Your task to perform on an android device: turn pop-ups off in chrome Image 0: 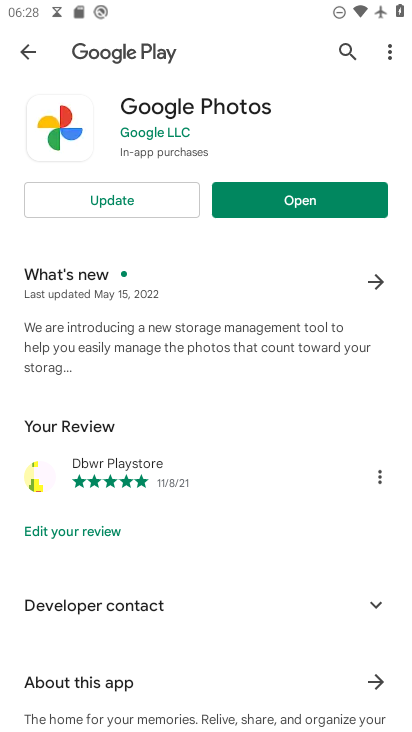
Step 0: press home button
Your task to perform on an android device: turn pop-ups off in chrome Image 1: 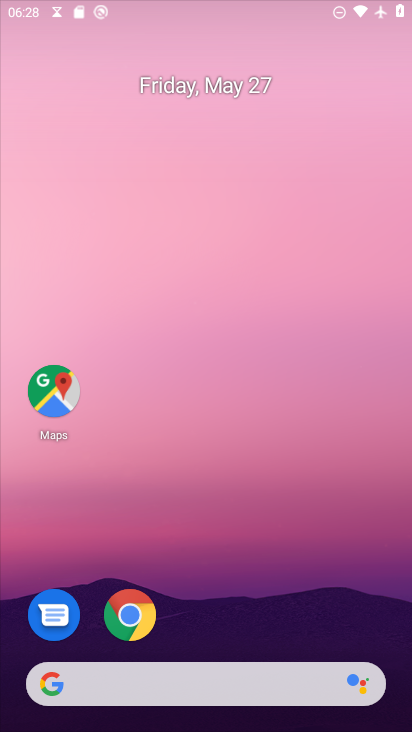
Step 1: drag from (280, 504) to (208, 71)
Your task to perform on an android device: turn pop-ups off in chrome Image 2: 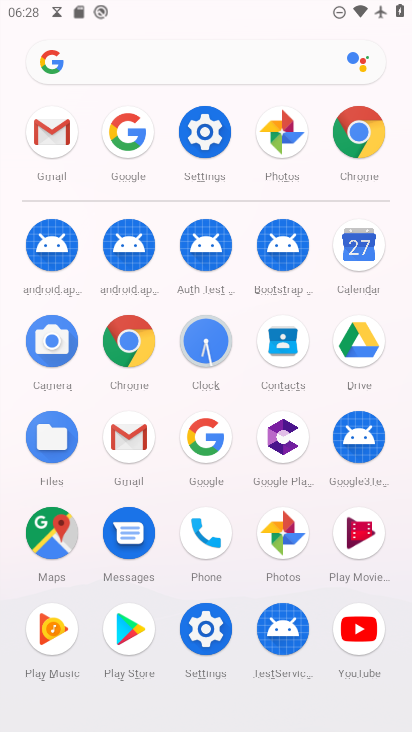
Step 2: click (361, 128)
Your task to perform on an android device: turn pop-ups off in chrome Image 3: 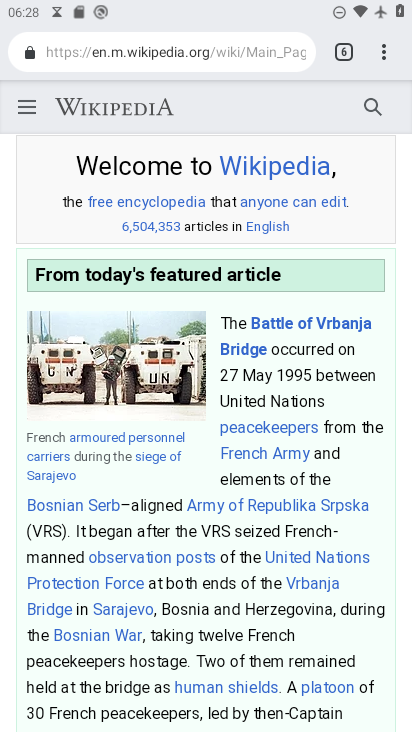
Step 3: click (385, 52)
Your task to perform on an android device: turn pop-ups off in chrome Image 4: 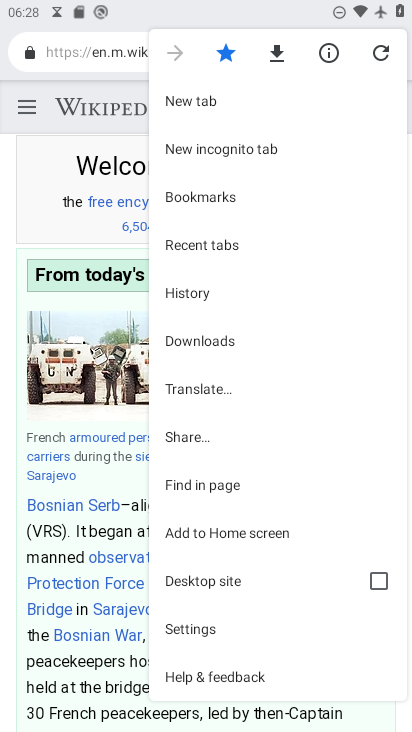
Step 4: click (237, 635)
Your task to perform on an android device: turn pop-ups off in chrome Image 5: 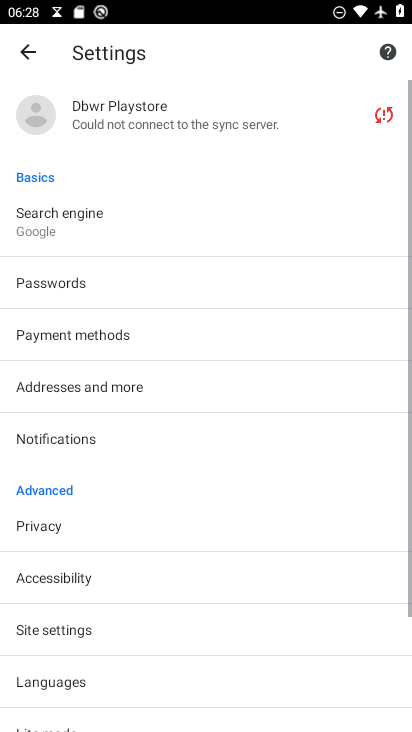
Step 5: drag from (208, 527) to (211, 103)
Your task to perform on an android device: turn pop-ups off in chrome Image 6: 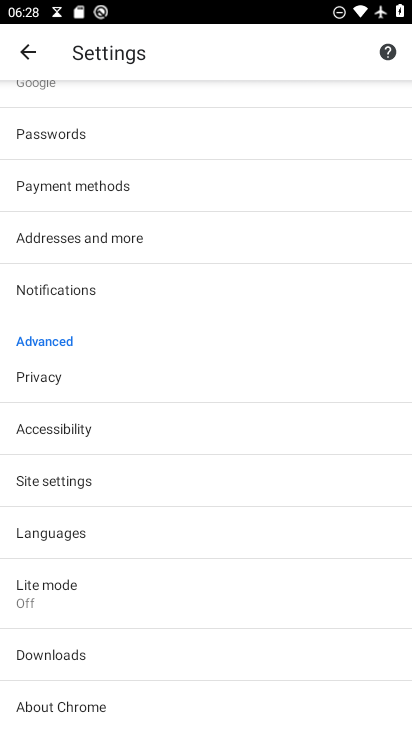
Step 6: click (121, 486)
Your task to perform on an android device: turn pop-ups off in chrome Image 7: 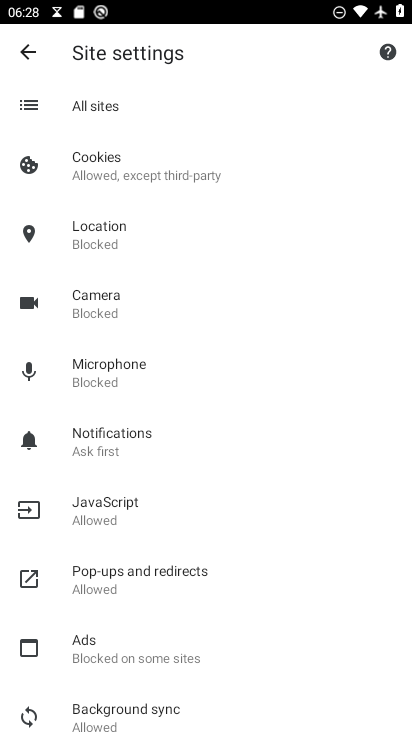
Step 7: click (174, 577)
Your task to perform on an android device: turn pop-ups off in chrome Image 8: 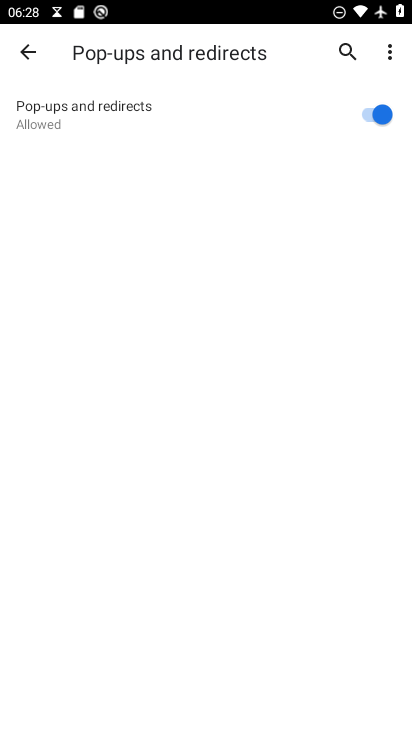
Step 8: click (372, 108)
Your task to perform on an android device: turn pop-ups off in chrome Image 9: 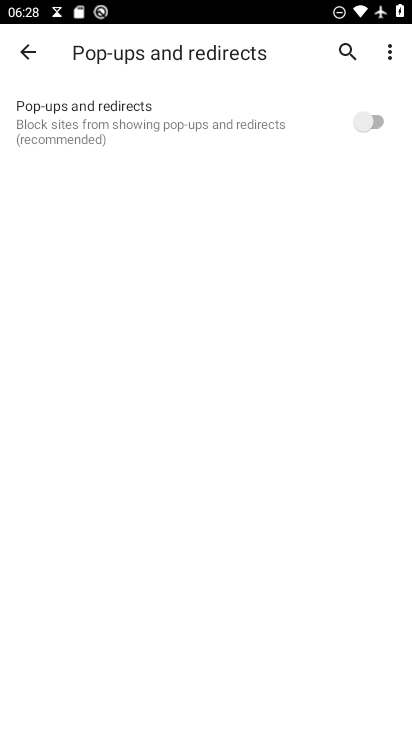
Step 9: task complete